Your task to perform on an android device: open sync settings in chrome Image 0: 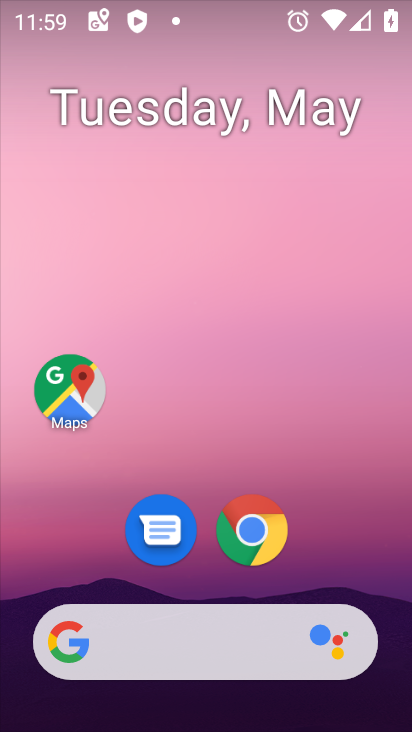
Step 0: click (252, 533)
Your task to perform on an android device: open sync settings in chrome Image 1: 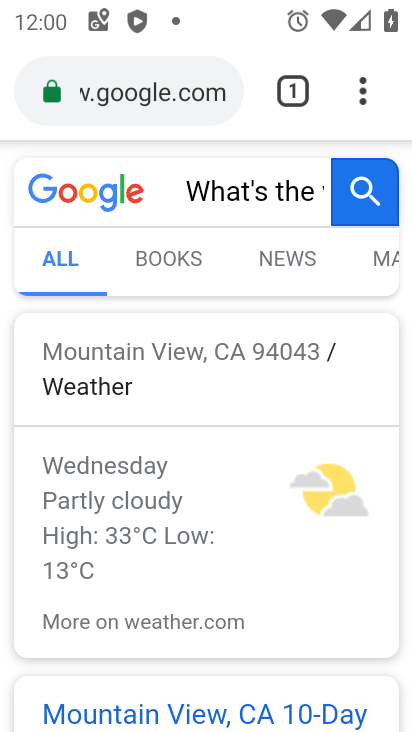
Step 1: click (362, 92)
Your task to perform on an android device: open sync settings in chrome Image 2: 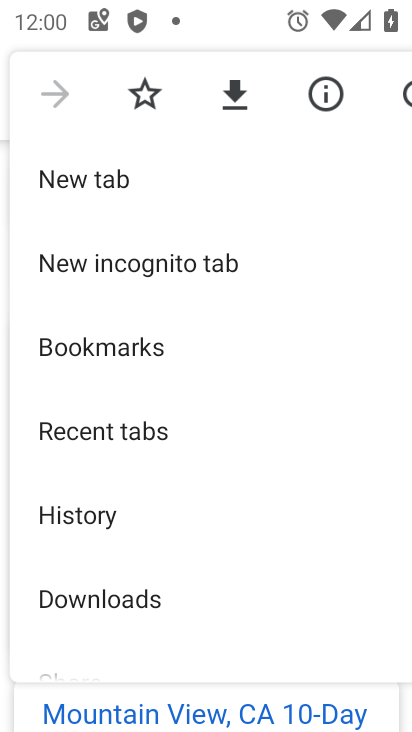
Step 2: drag from (167, 618) to (279, 318)
Your task to perform on an android device: open sync settings in chrome Image 3: 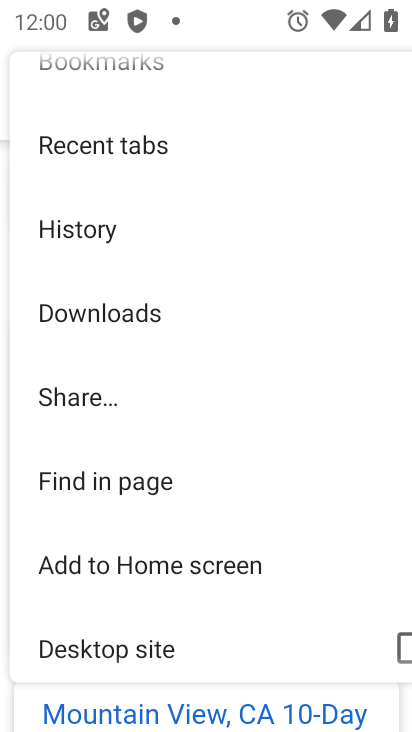
Step 3: drag from (188, 594) to (307, 220)
Your task to perform on an android device: open sync settings in chrome Image 4: 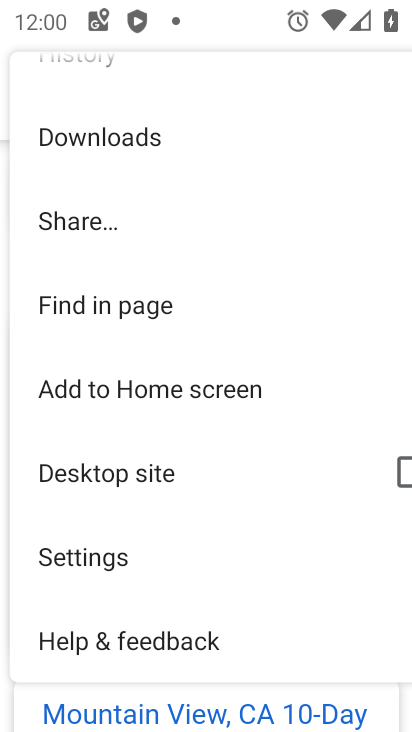
Step 4: click (105, 538)
Your task to perform on an android device: open sync settings in chrome Image 5: 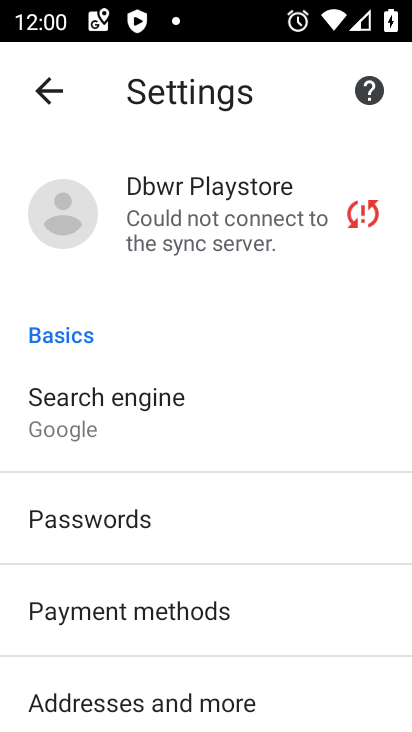
Step 5: click (219, 237)
Your task to perform on an android device: open sync settings in chrome Image 6: 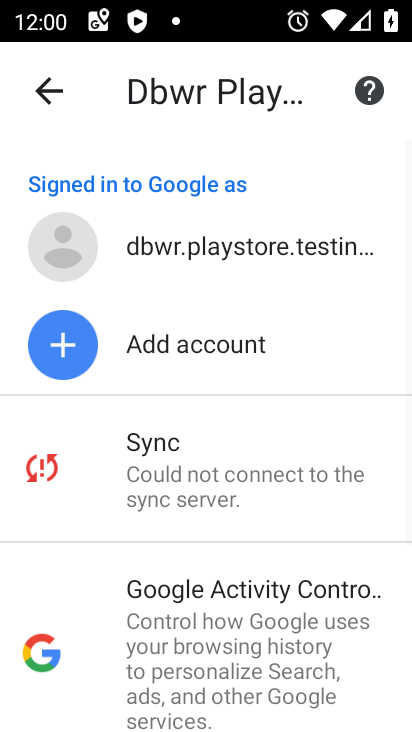
Step 6: task complete